Your task to perform on an android device: Open the calendar app, open the side menu, and click the "Day" option Image 0: 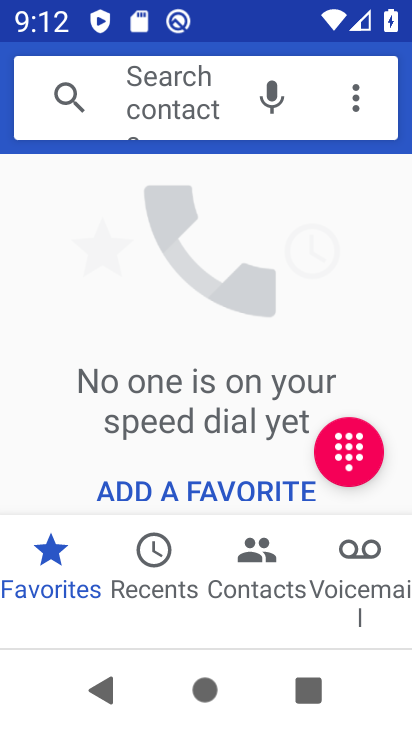
Step 0: press home button
Your task to perform on an android device: Open the calendar app, open the side menu, and click the "Day" option Image 1: 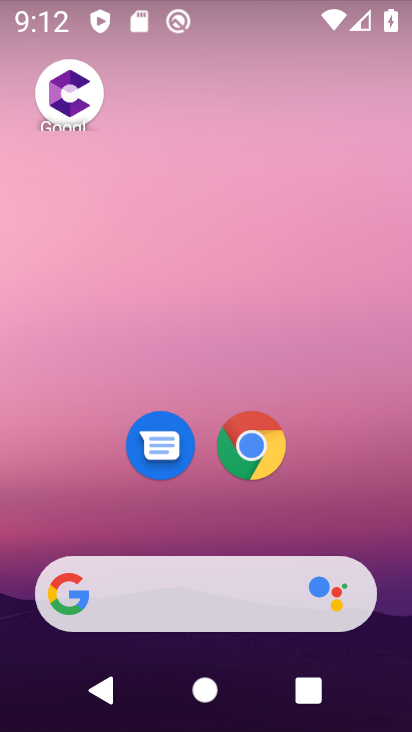
Step 1: drag from (204, 421) to (224, 177)
Your task to perform on an android device: Open the calendar app, open the side menu, and click the "Day" option Image 2: 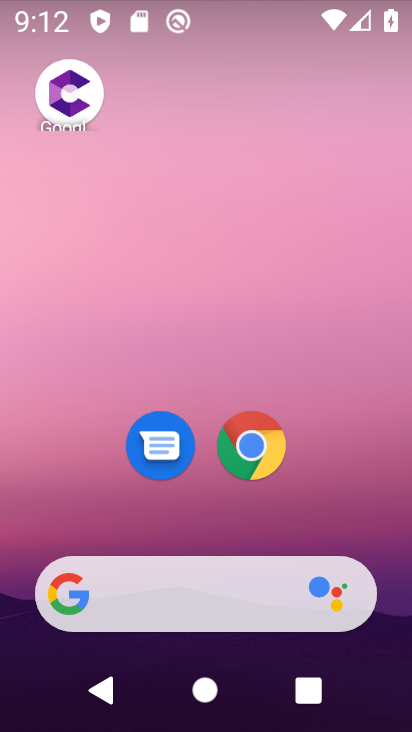
Step 2: drag from (223, 532) to (236, 66)
Your task to perform on an android device: Open the calendar app, open the side menu, and click the "Day" option Image 3: 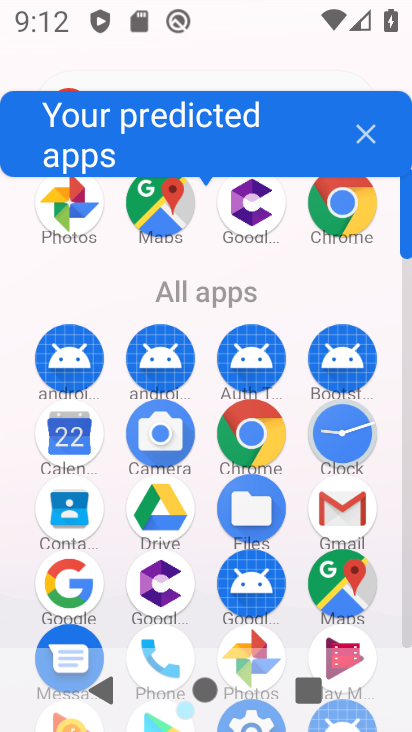
Step 3: click (76, 430)
Your task to perform on an android device: Open the calendar app, open the side menu, and click the "Day" option Image 4: 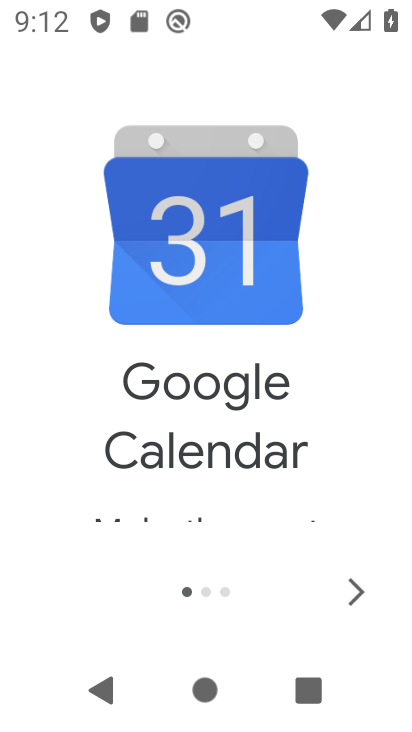
Step 4: click (347, 594)
Your task to perform on an android device: Open the calendar app, open the side menu, and click the "Day" option Image 5: 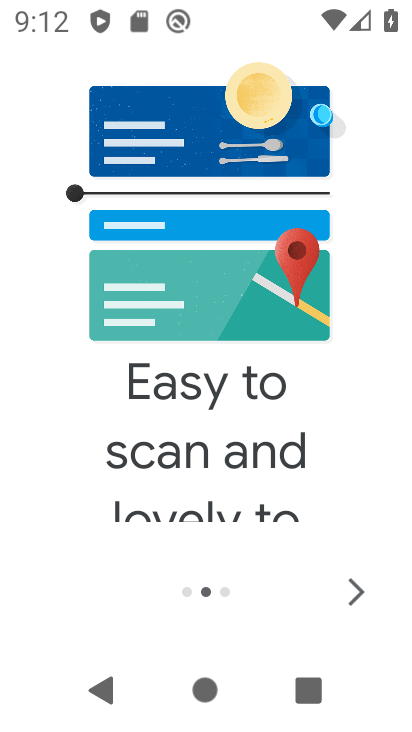
Step 5: click (350, 591)
Your task to perform on an android device: Open the calendar app, open the side menu, and click the "Day" option Image 6: 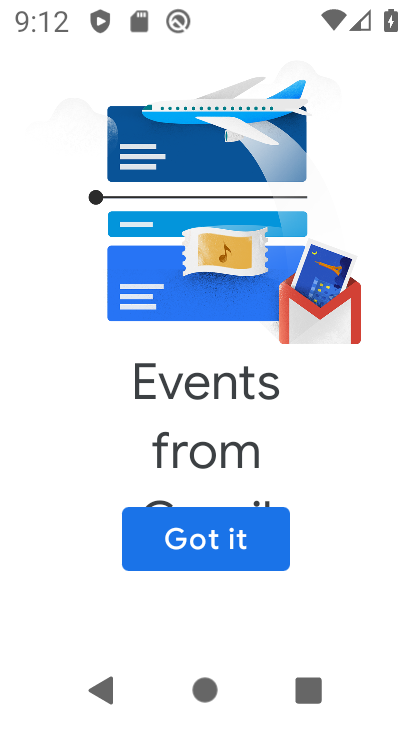
Step 6: click (350, 591)
Your task to perform on an android device: Open the calendar app, open the side menu, and click the "Day" option Image 7: 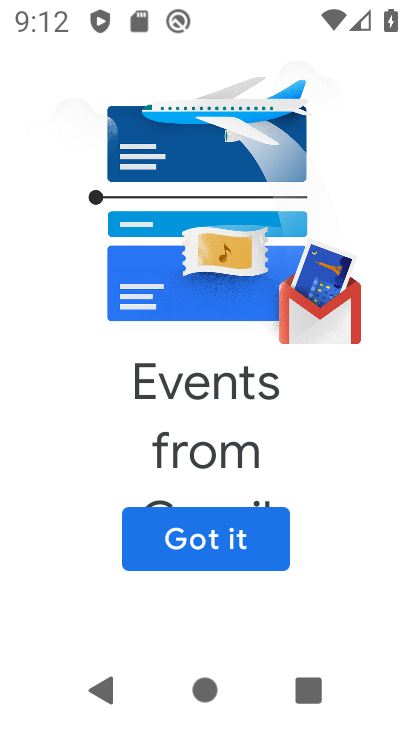
Step 7: click (243, 554)
Your task to perform on an android device: Open the calendar app, open the side menu, and click the "Day" option Image 8: 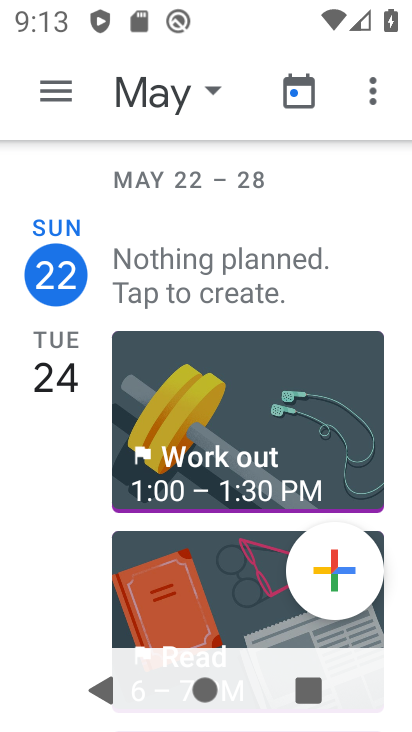
Step 8: click (51, 85)
Your task to perform on an android device: Open the calendar app, open the side menu, and click the "Day" option Image 9: 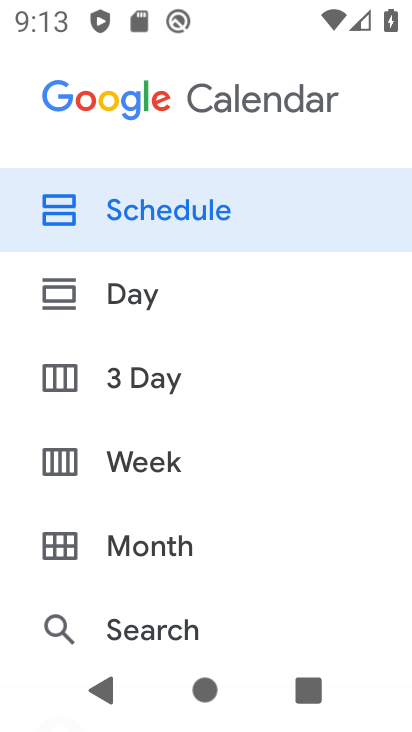
Step 9: click (143, 299)
Your task to perform on an android device: Open the calendar app, open the side menu, and click the "Day" option Image 10: 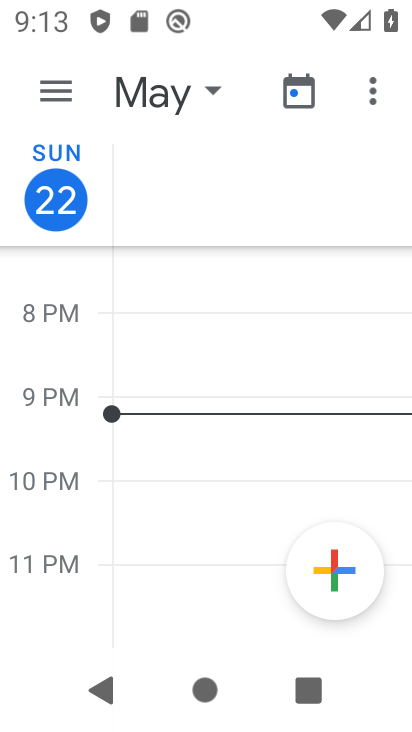
Step 10: task complete